Your task to perform on an android device: Search for flights from NYC to Buenos aires Image 0: 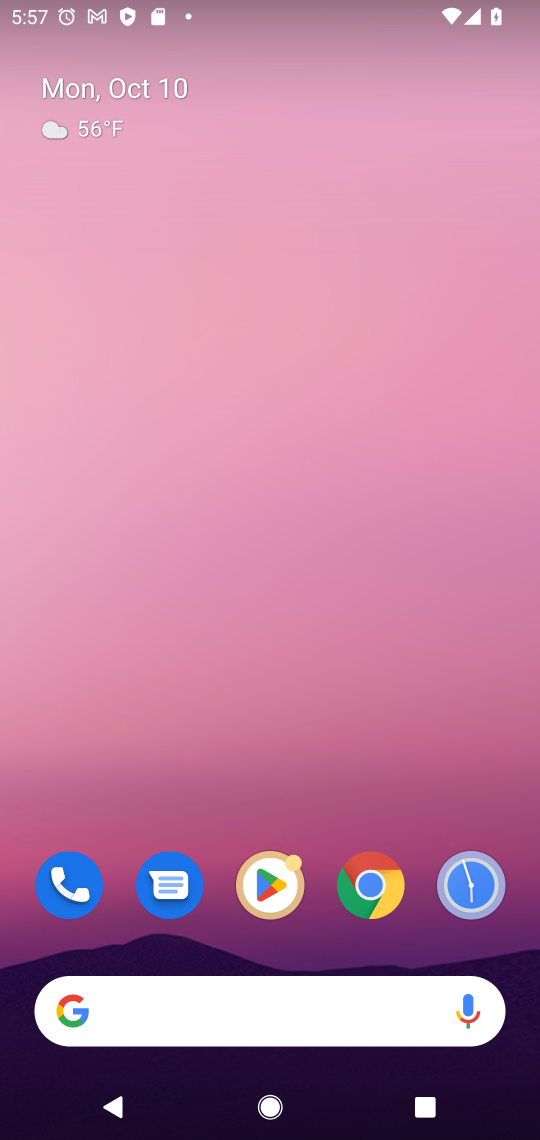
Step 0: click (265, 993)
Your task to perform on an android device: Search for flights from NYC to Buenos aires Image 1: 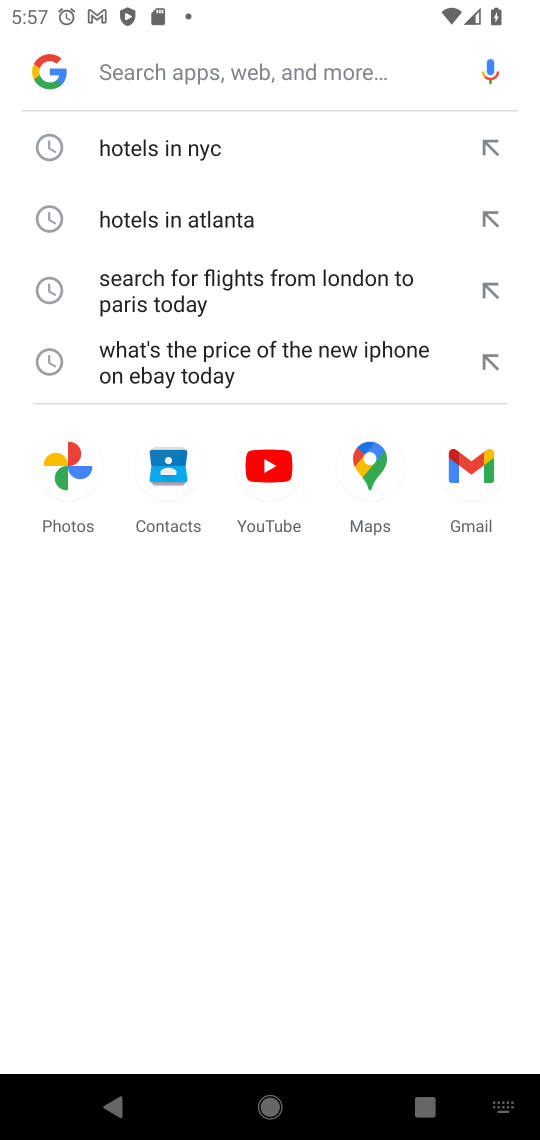
Step 1: type "flights from NYC to Buenos aires"
Your task to perform on an android device: Search for flights from NYC to Buenos aires Image 2: 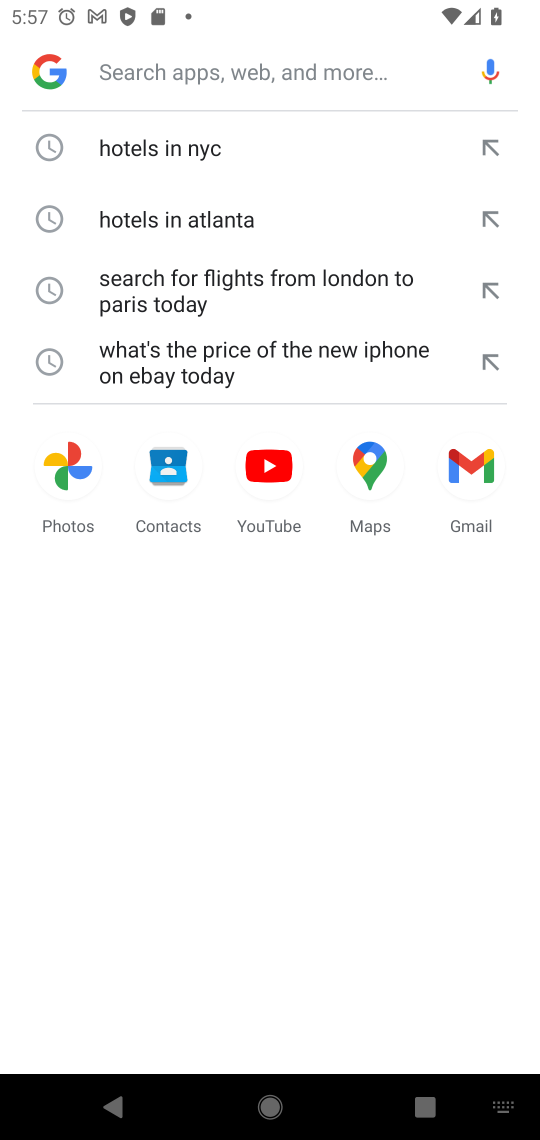
Step 2: click (394, 408)
Your task to perform on an android device: Search for flights from NYC to Buenos aires Image 3: 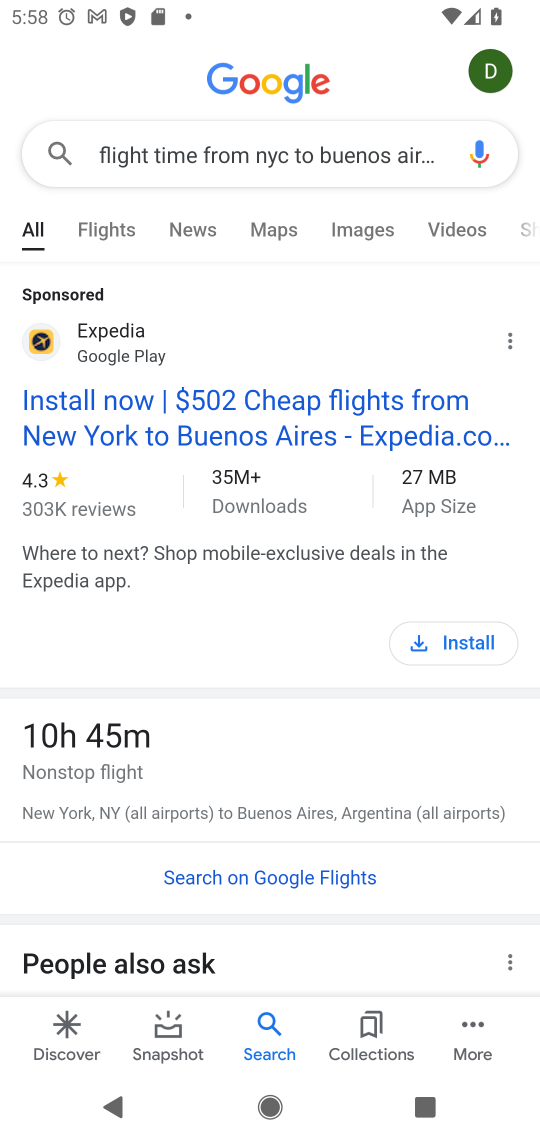
Step 3: drag from (328, 777) to (328, 425)
Your task to perform on an android device: Search for flights from NYC to Buenos aires Image 4: 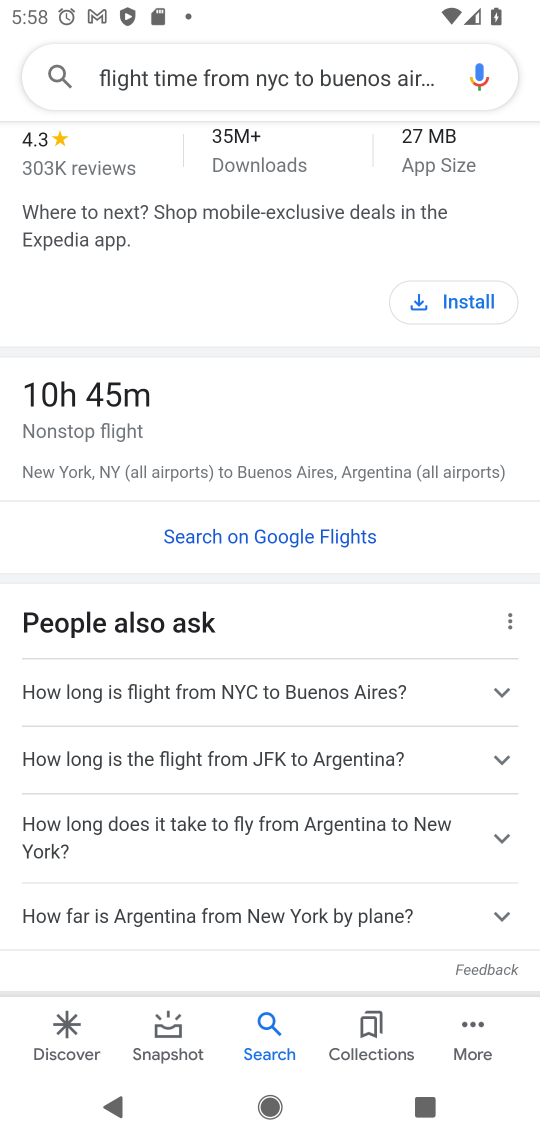
Step 4: drag from (315, 777) to (315, 470)
Your task to perform on an android device: Search for flights from NYC to Buenos aires Image 5: 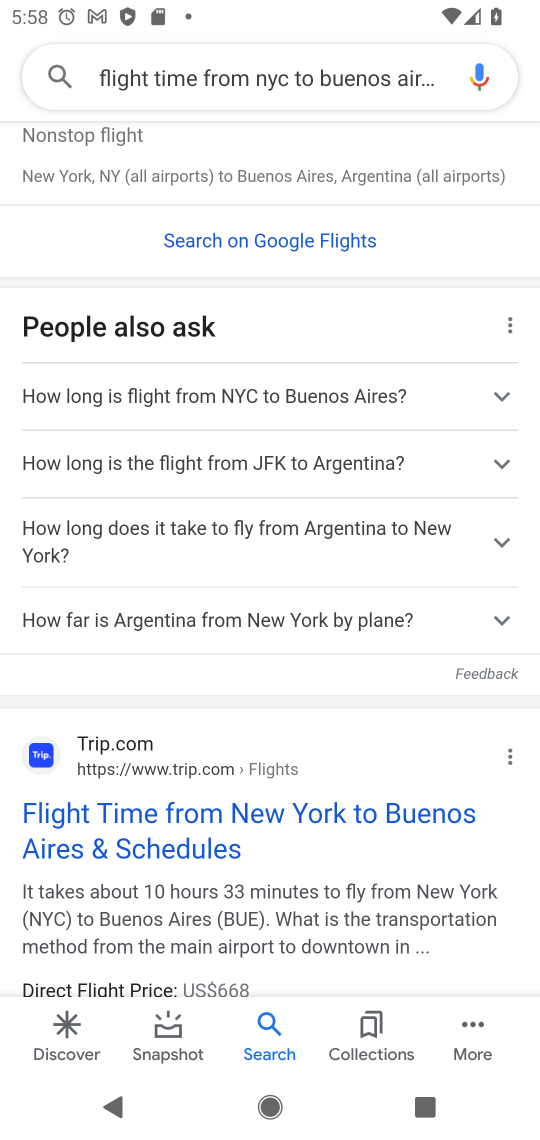
Step 5: click (212, 813)
Your task to perform on an android device: Search for flights from NYC to Buenos aires Image 6: 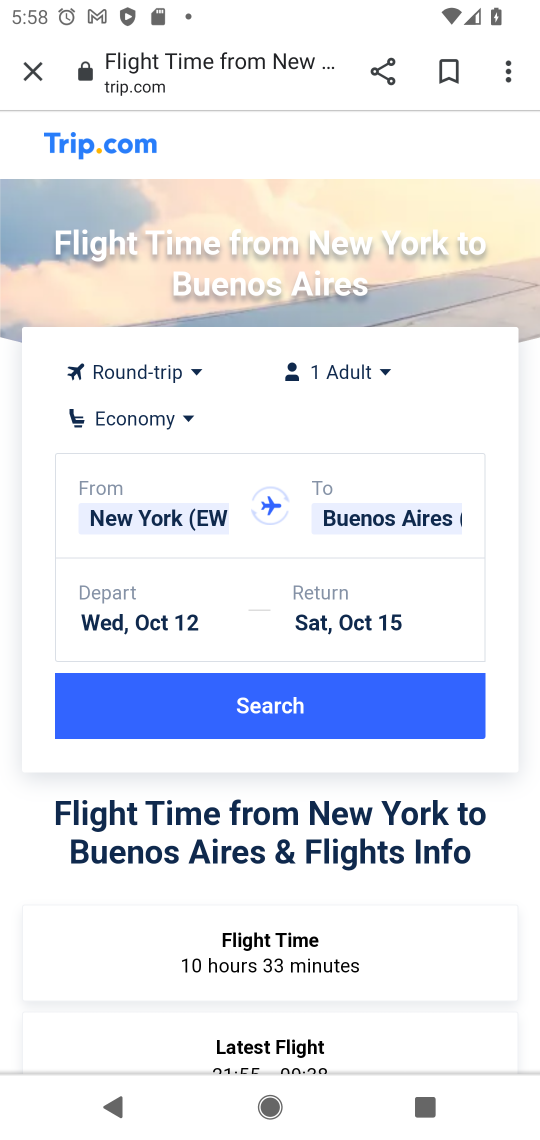
Step 6: click (309, 700)
Your task to perform on an android device: Search for flights from NYC to Buenos aires Image 7: 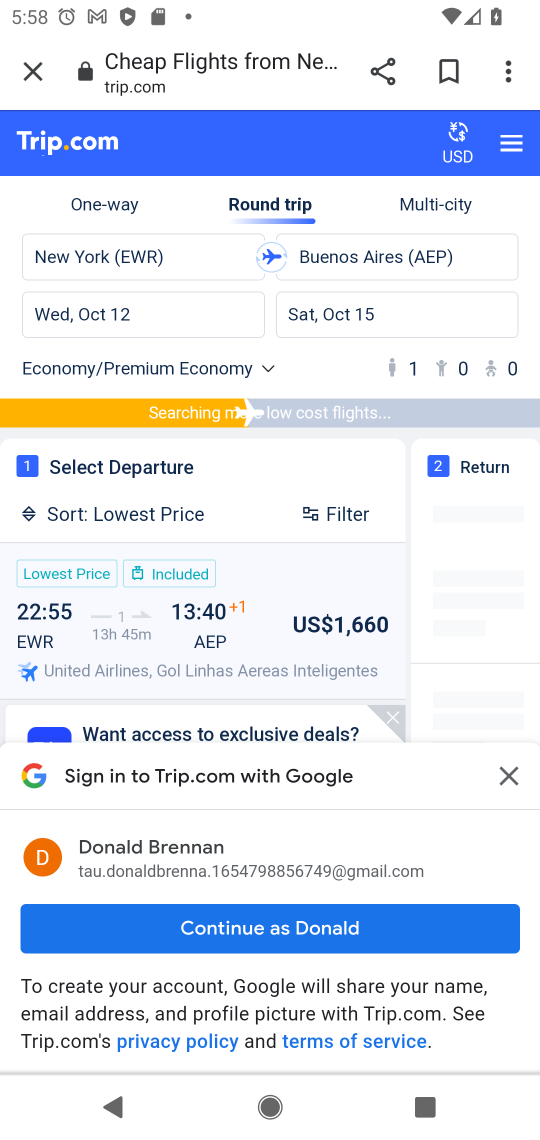
Step 7: click (512, 774)
Your task to perform on an android device: Search for flights from NYC to Buenos aires Image 8: 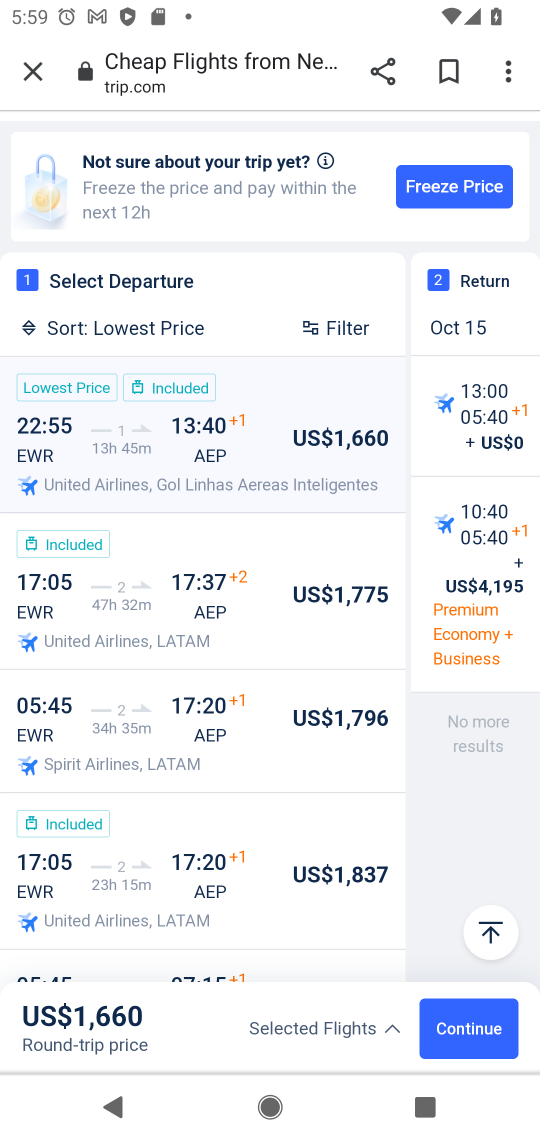
Step 8: click (454, 1034)
Your task to perform on an android device: Search for flights from NYC to Buenos aires Image 9: 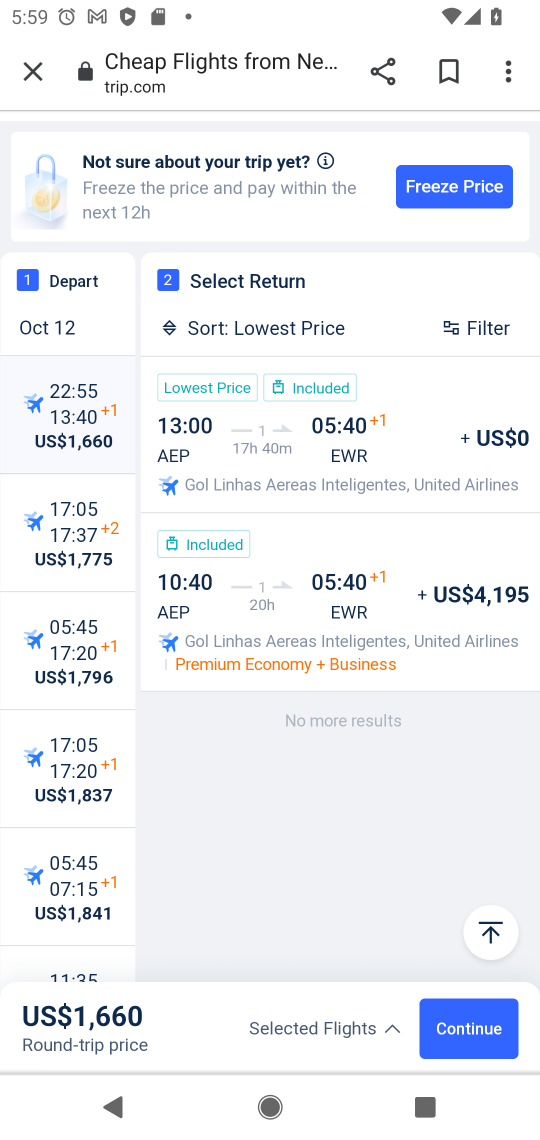
Step 9: task complete